Your task to perform on an android device: toggle pop-ups in chrome Image 0: 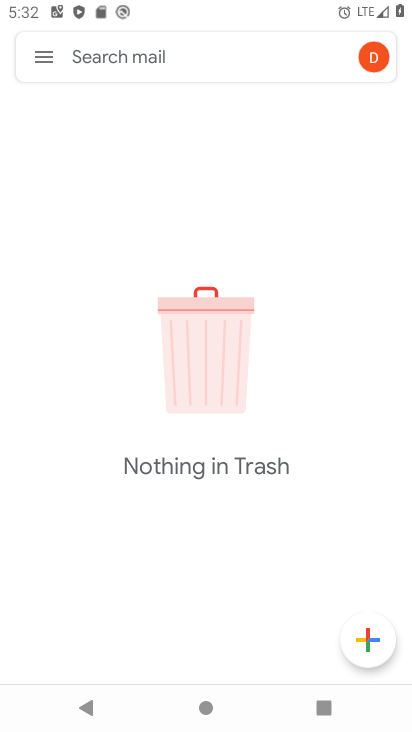
Step 0: press home button
Your task to perform on an android device: toggle pop-ups in chrome Image 1: 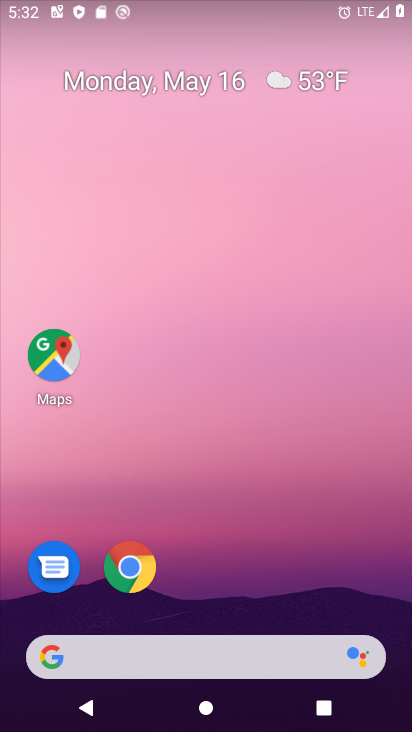
Step 1: drag from (290, 673) to (391, 449)
Your task to perform on an android device: toggle pop-ups in chrome Image 2: 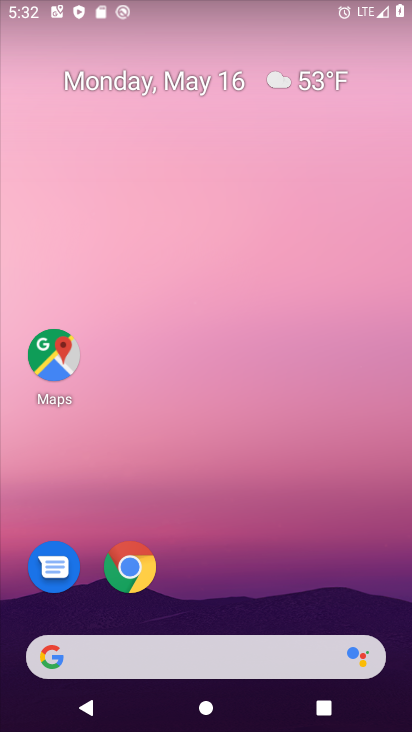
Step 2: click (121, 352)
Your task to perform on an android device: toggle pop-ups in chrome Image 3: 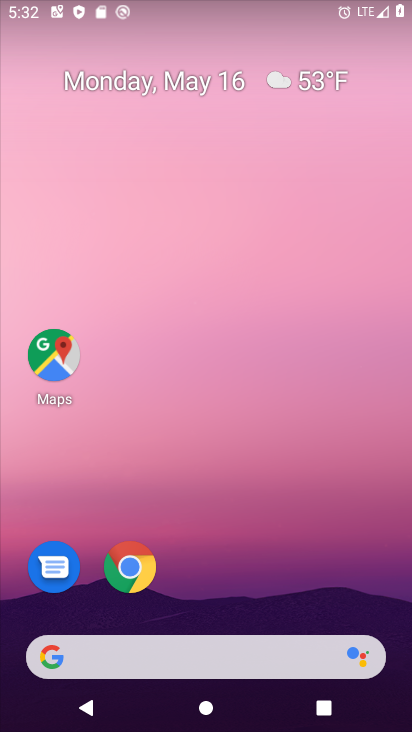
Step 3: drag from (293, 665) to (406, 273)
Your task to perform on an android device: toggle pop-ups in chrome Image 4: 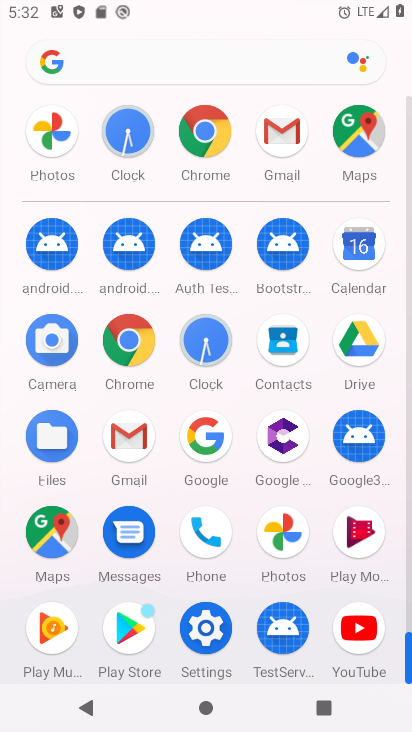
Step 4: click (134, 343)
Your task to perform on an android device: toggle pop-ups in chrome Image 5: 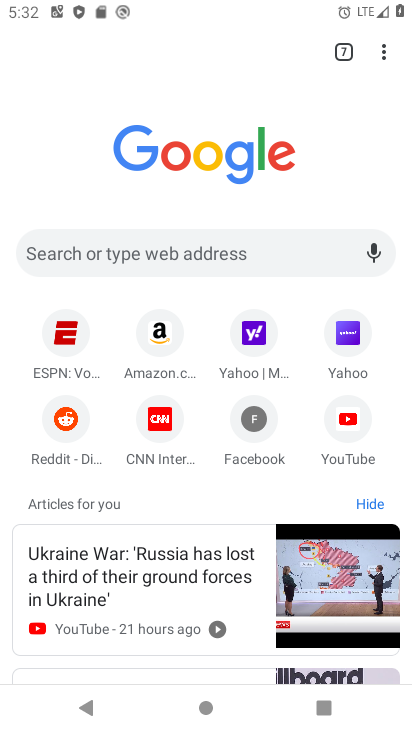
Step 5: click (386, 54)
Your task to perform on an android device: toggle pop-ups in chrome Image 6: 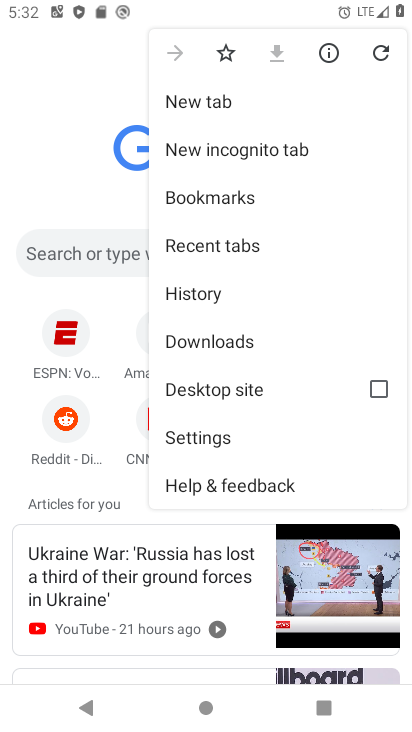
Step 6: click (214, 439)
Your task to perform on an android device: toggle pop-ups in chrome Image 7: 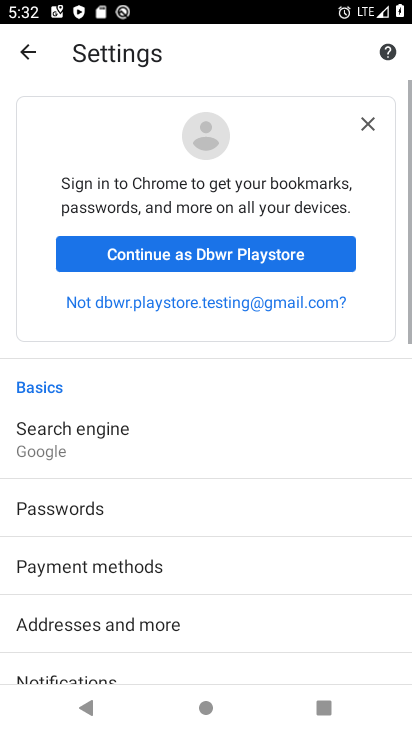
Step 7: drag from (171, 505) to (145, 3)
Your task to perform on an android device: toggle pop-ups in chrome Image 8: 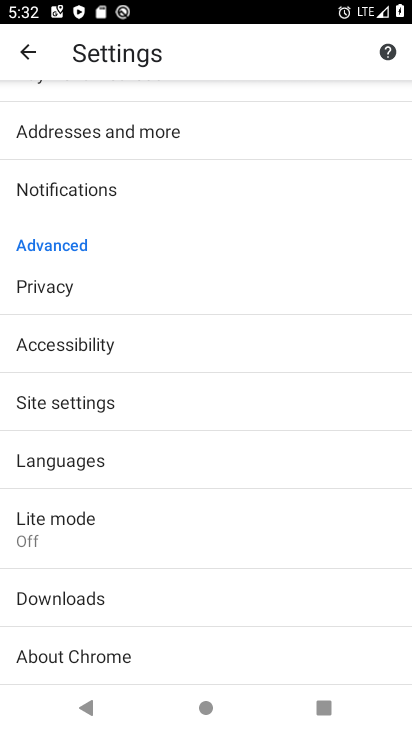
Step 8: click (112, 400)
Your task to perform on an android device: toggle pop-ups in chrome Image 9: 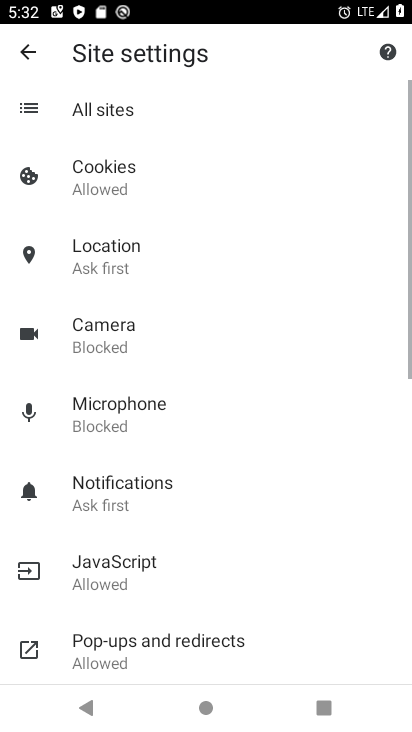
Step 9: drag from (168, 542) to (160, 11)
Your task to perform on an android device: toggle pop-ups in chrome Image 10: 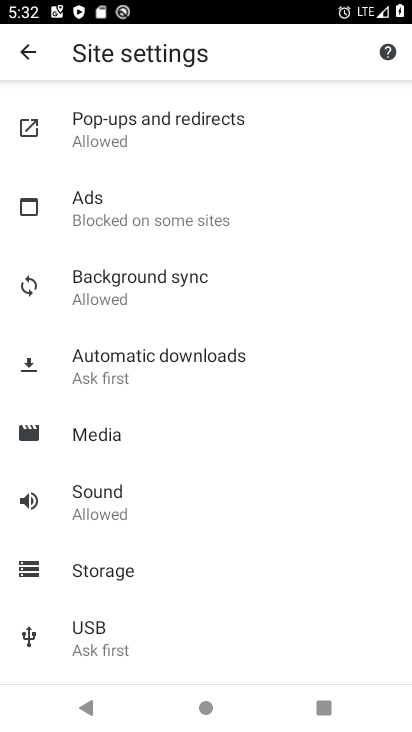
Step 10: click (216, 116)
Your task to perform on an android device: toggle pop-ups in chrome Image 11: 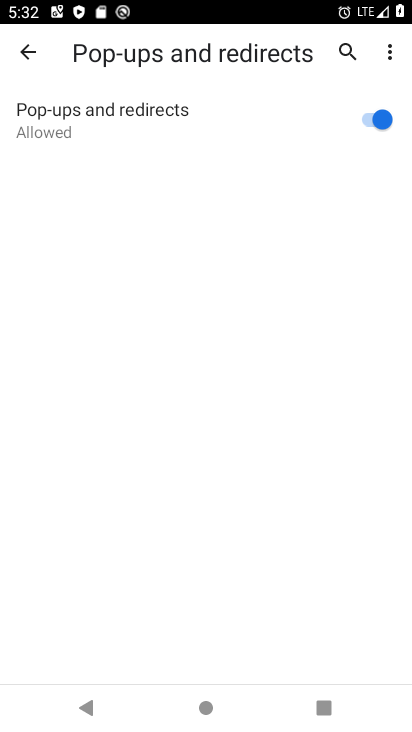
Step 11: click (371, 118)
Your task to perform on an android device: toggle pop-ups in chrome Image 12: 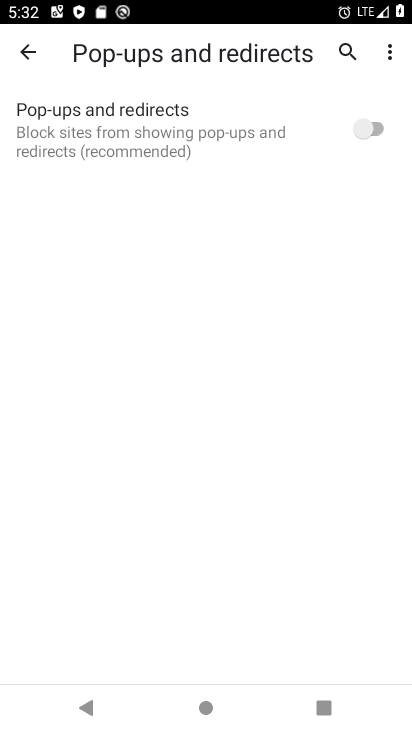
Step 12: task complete